Your task to perform on an android device: turn off airplane mode Image 0: 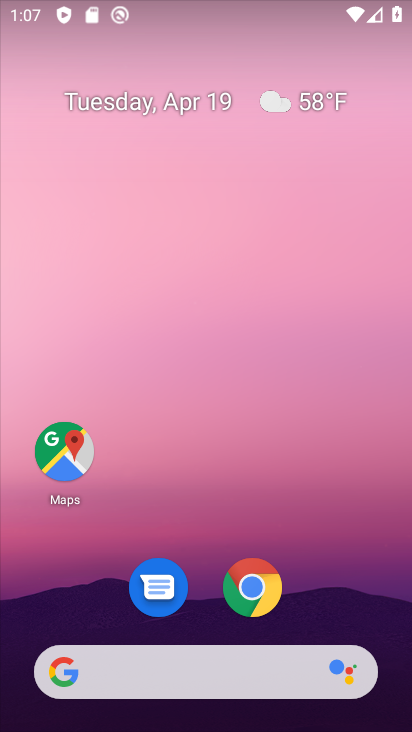
Step 0: click (254, 588)
Your task to perform on an android device: turn off airplane mode Image 1: 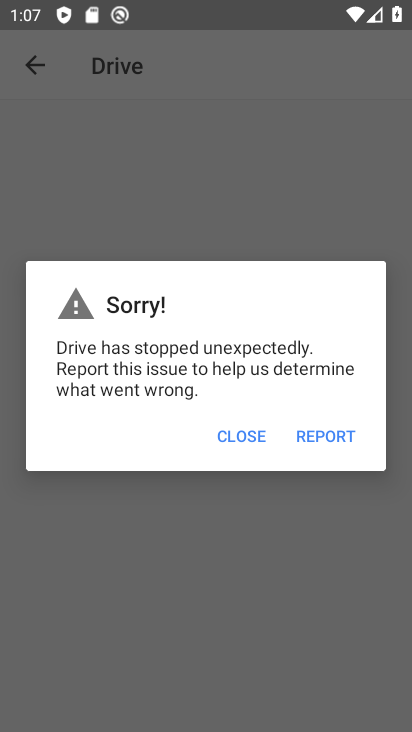
Step 1: press home button
Your task to perform on an android device: turn off airplane mode Image 2: 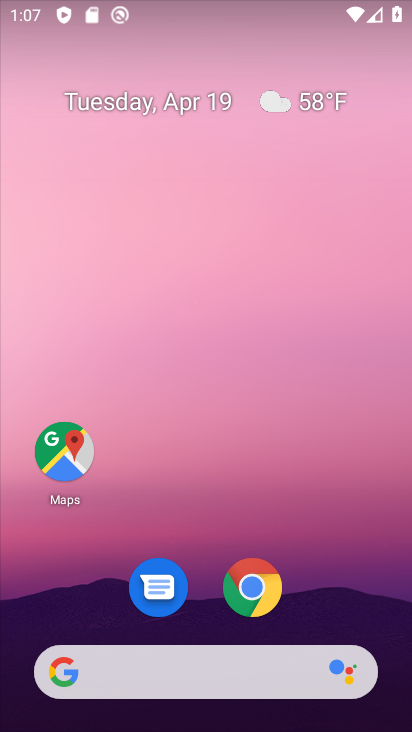
Step 2: drag from (304, 475) to (274, 91)
Your task to perform on an android device: turn off airplane mode Image 3: 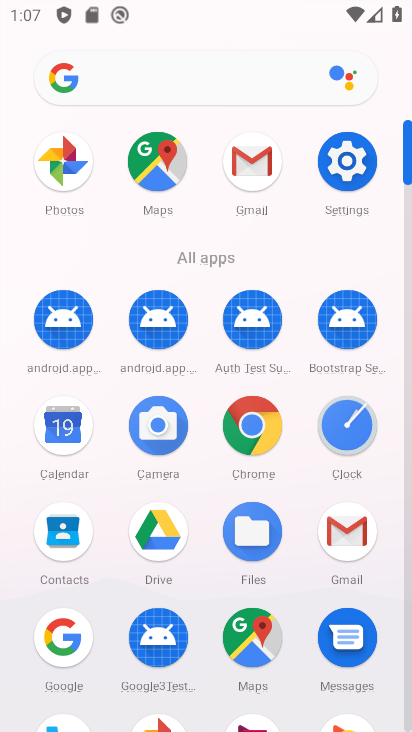
Step 3: click (351, 162)
Your task to perform on an android device: turn off airplane mode Image 4: 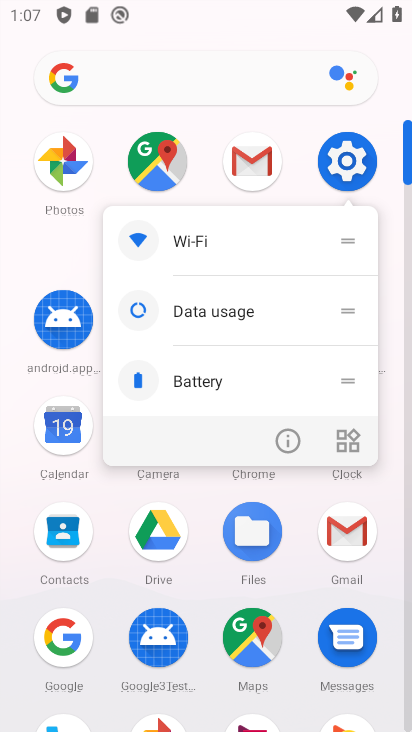
Step 4: click (351, 167)
Your task to perform on an android device: turn off airplane mode Image 5: 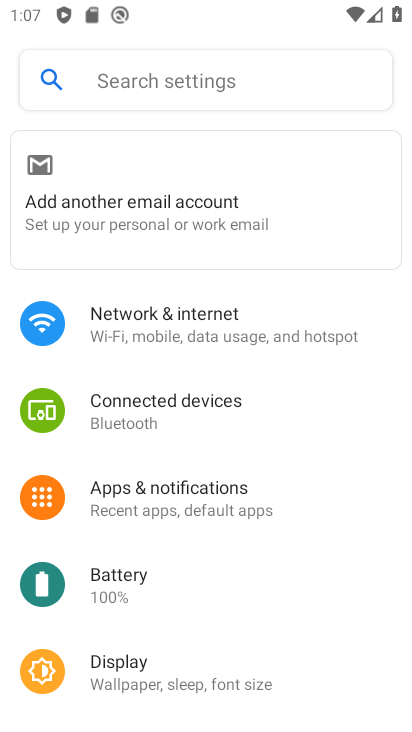
Step 5: click (193, 325)
Your task to perform on an android device: turn off airplane mode Image 6: 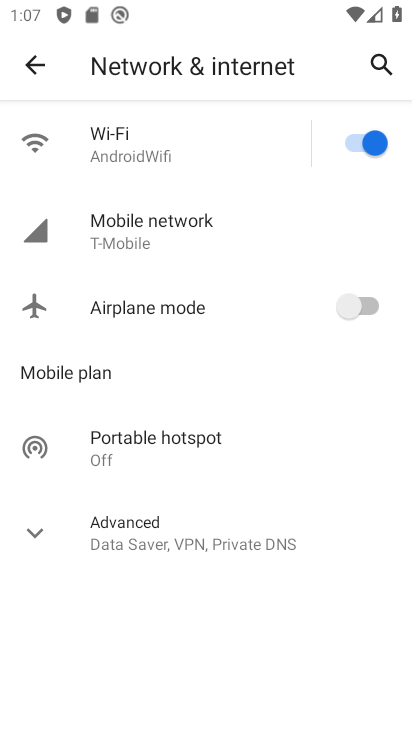
Step 6: task complete